Your task to perform on an android device: check google app version Image 0: 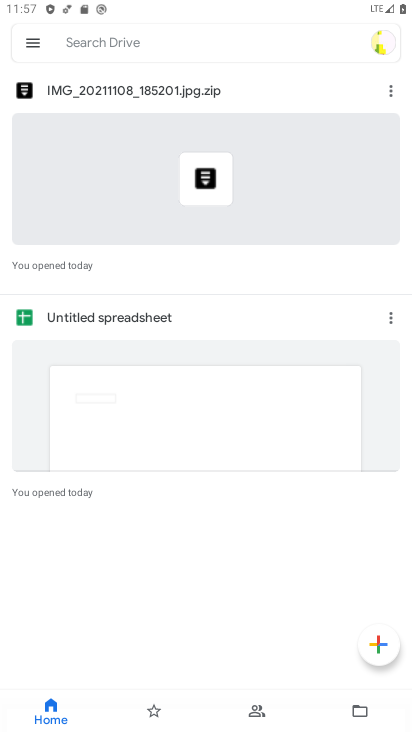
Step 0: press home button
Your task to perform on an android device: check google app version Image 1: 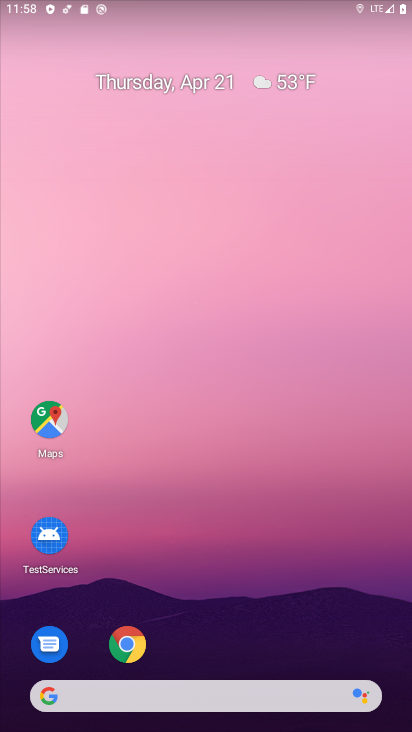
Step 1: drag from (312, 641) to (328, 112)
Your task to perform on an android device: check google app version Image 2: 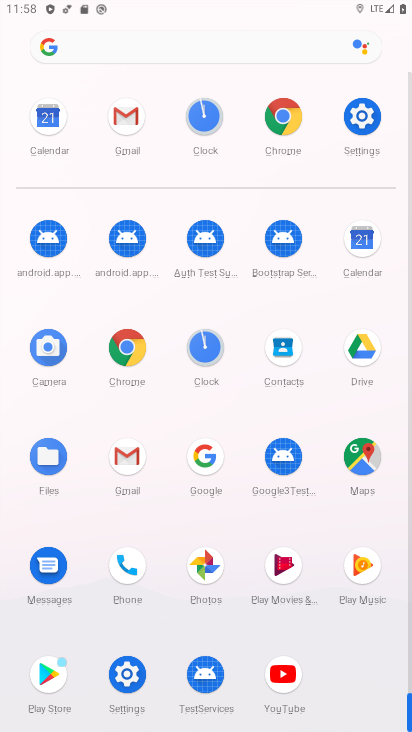
Step 2: click (126, 674)
Your task to perform on an android device: check google app version Image 3: 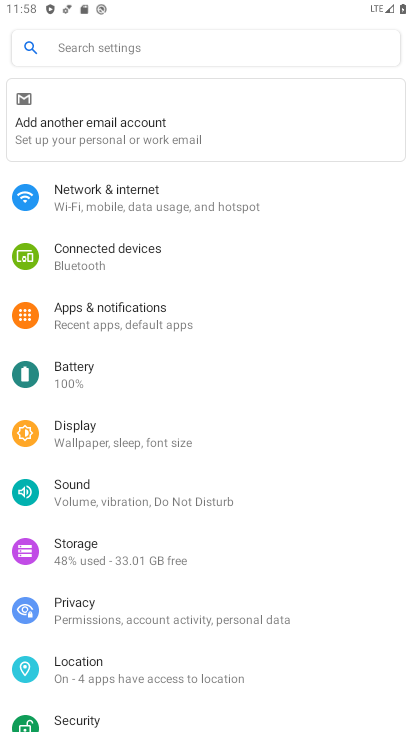
Step 3: drag from (276, 630) to (318, 66)
Your task to perform on an android device: check google app version Image 4: 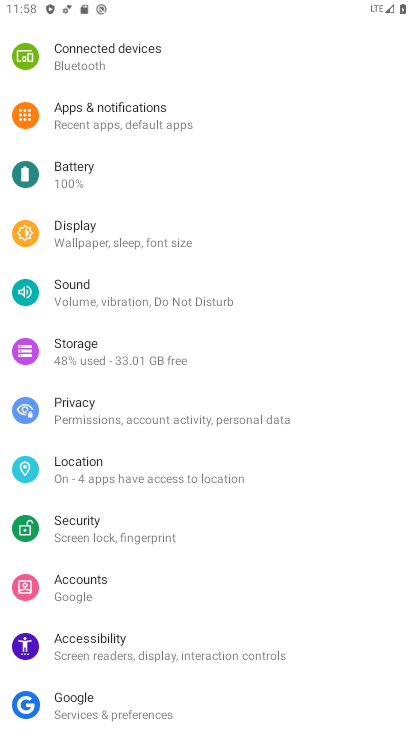
Step 4: drag from (126, 678) to (178, 80)
Your task to perform on an android device: check google app version Image 5: 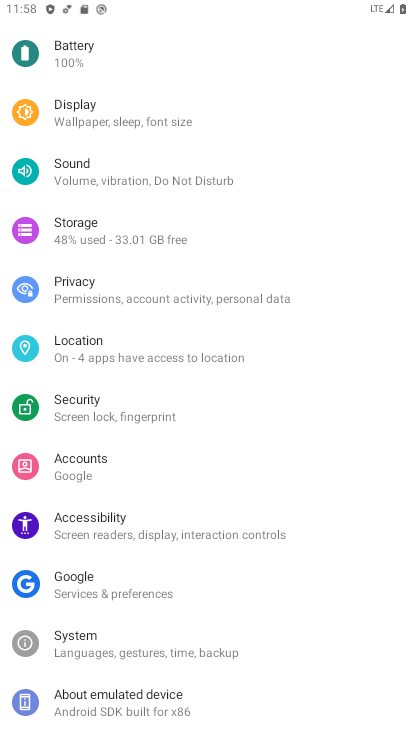
Step 5: click (176, 700)
Your task to perform on an android device: check google app version Image 6: 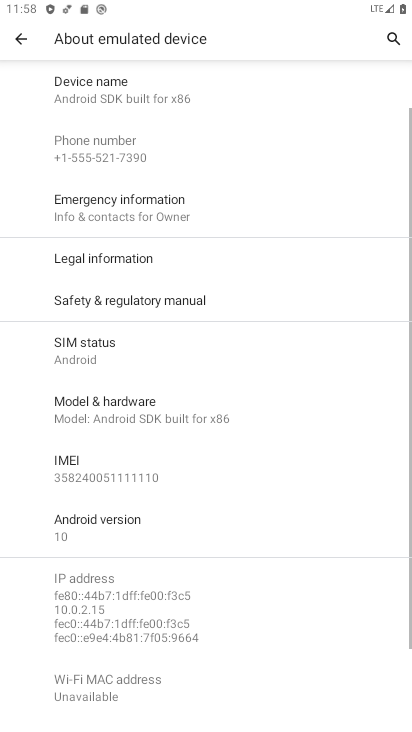
Step 6: click (113, 531)
Your task to perform on an android device: check google app version Image 7: 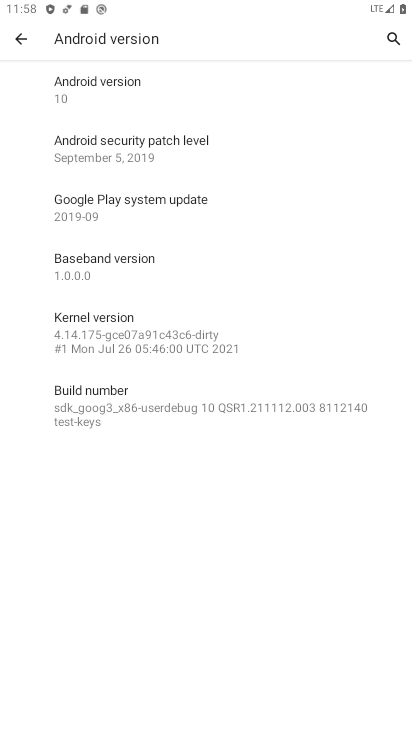
Step 7: click (148, 100)
Your task to perform on an android device: check google app version Image 8: 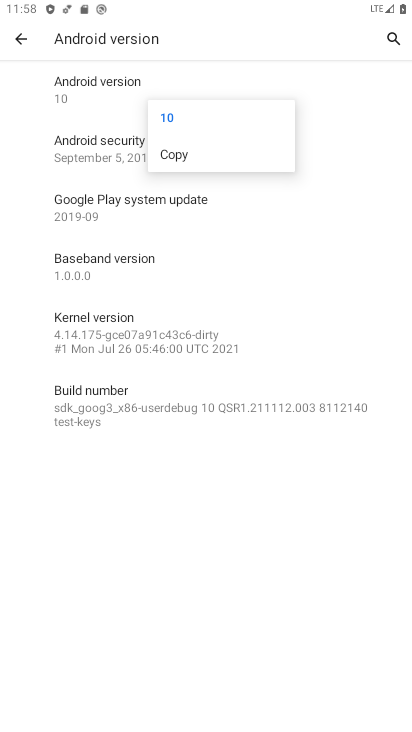
Step 8: click (95, 96)
Your task to perform on an android device: check google app version Image 9: 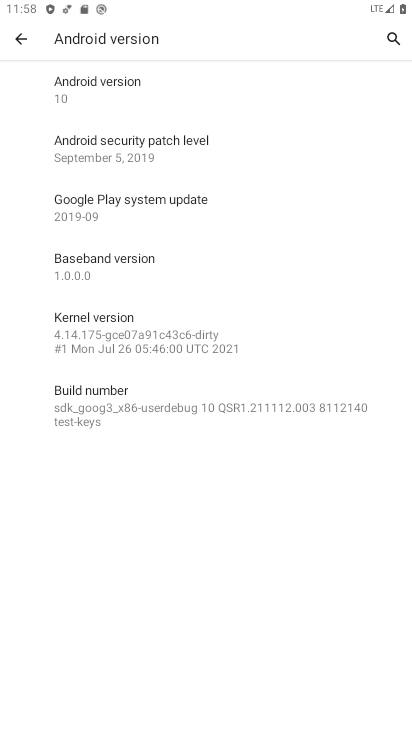
Step 9: click (94, 95)
Your task to perform on an android device: check google app version Image 10: 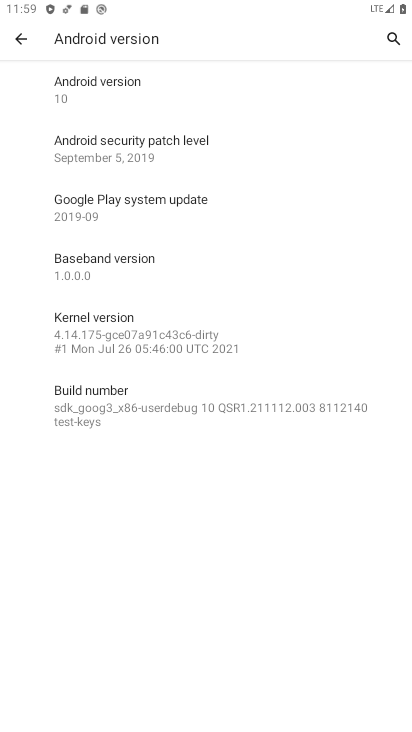
Step 10: task complete